Your task to perform on an android device: Open Google Chrome and open the bookmarks view Image 0: 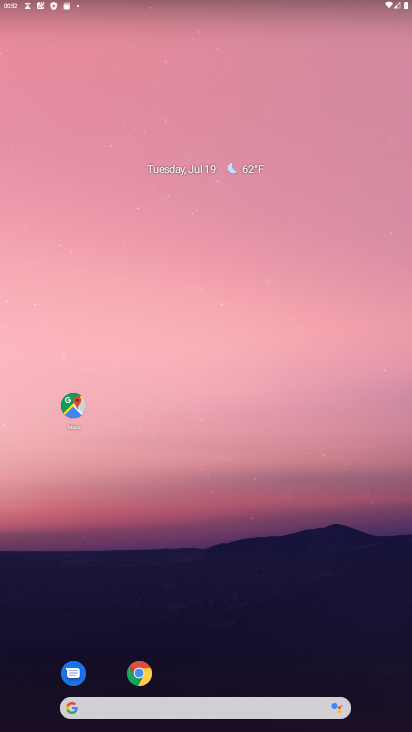
Step 0: drag from (55, 639) to (115, 340)
Your task to perform on an android device: Open Google Chrome and open the bookmarks view Image 1: 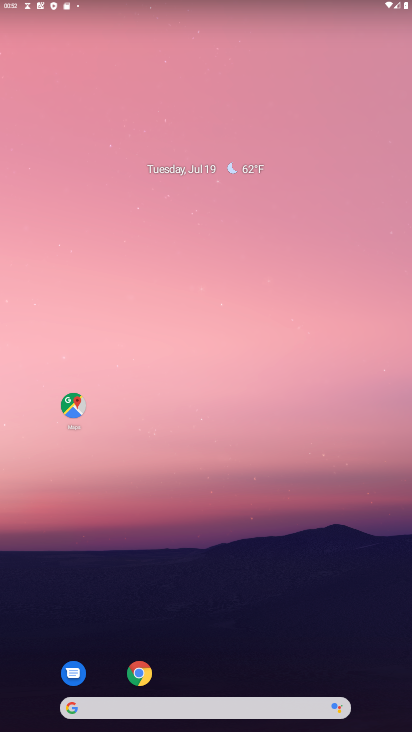
Step 1: drag from (203, 656) to (210, 264)
Your task to perform on an android device: Open Google Chrome and open the bookmarks view Image 2: 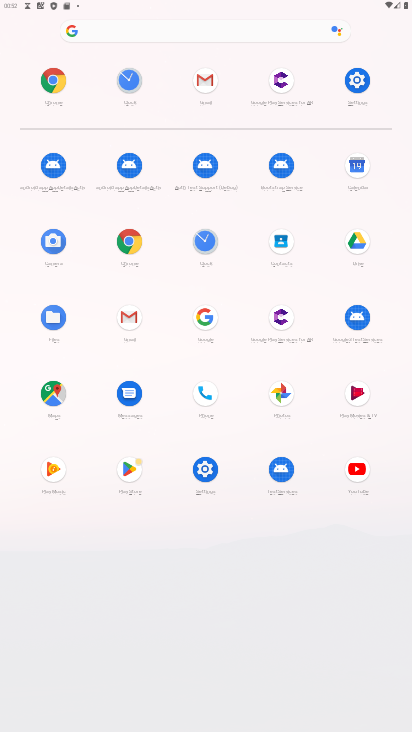
Step 2: click (60, 74)
Your task to perform on an android device: Open Google Chrome and open the bookmarks view Image 3: 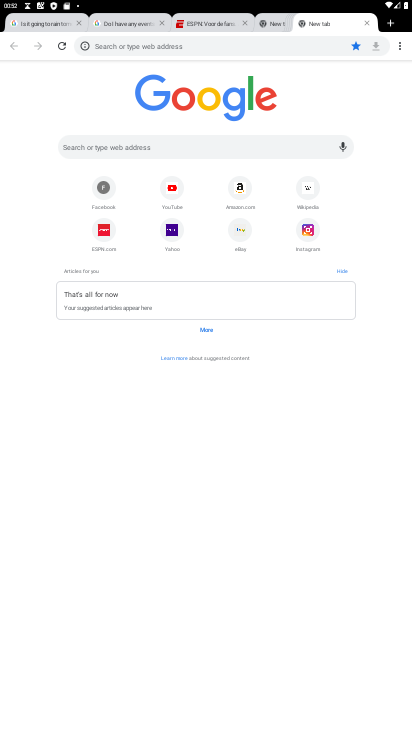
Step 3: click (405, 45)
Your task to perform on an android device: Open Google Chrome and open the bookmarks view Image 4: 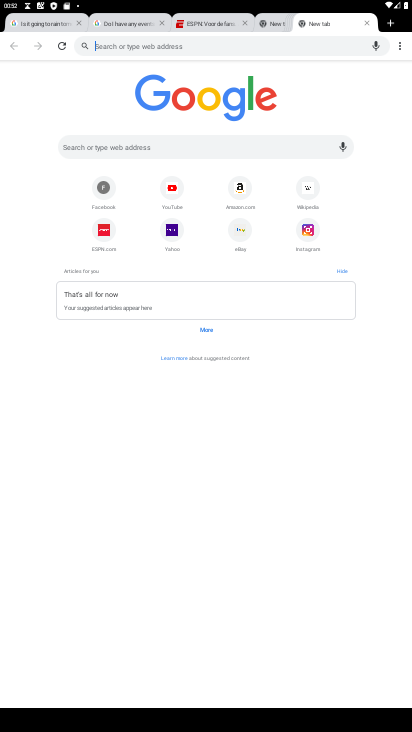
Step 4: click (399, 43)
Your task to perform on an android device: Open Google Chrome and open the bookmarks view Image 5: 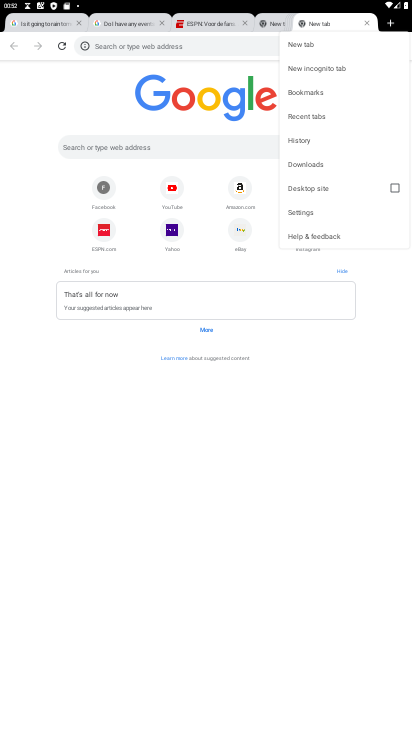
Step 5: click (322, 89)
Your task to perform on an android device: Open Google Chrome and open the bookmarks view Image 6: 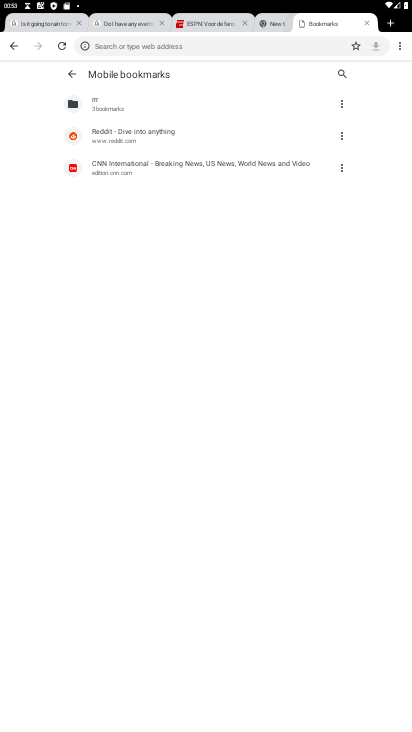
Step 6: task complete